Your task to perform on an android device: Search for seafood restaurants on Google Maps Image 0: 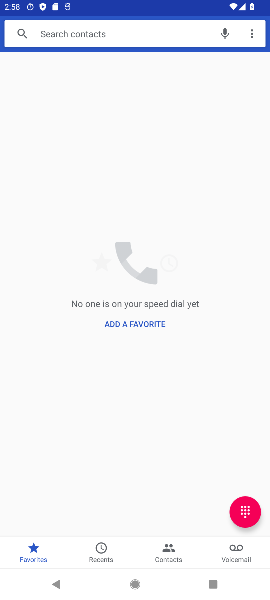
Step 0: press home button
Your task to perform on an android device: Search for seafood restaurants on Google Maps Image 1: 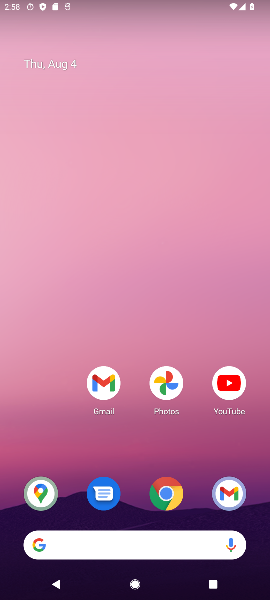
Step 1: click (39, 487)
Your task to perform on an android device: Search for seafood restaurants on Google Maps Image 2: 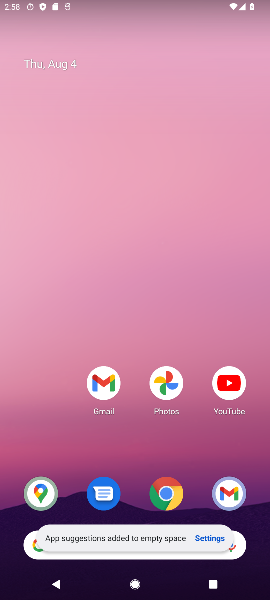
Step 2: click (48, 498)
Your task to perform on an android device: Search for seafood restaurants on Google Maps Image 3: 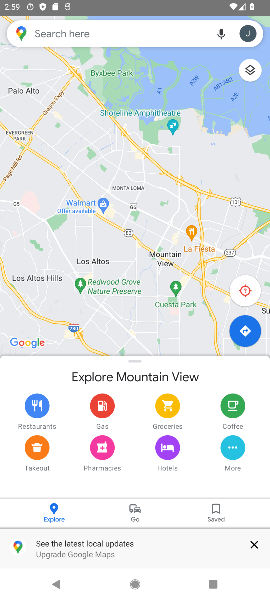
Step 3: click (61, 31)
Your task to perform on an android device: Search for seafood restaurants on Google Maps Image 4: 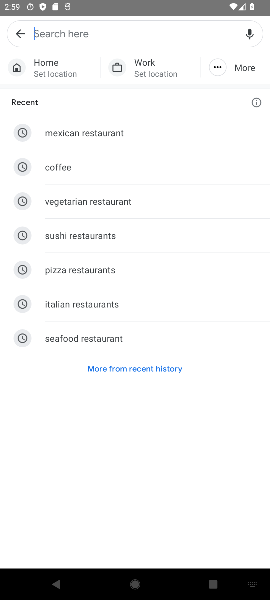
Step 4: type "seafood restaurants"
Your task to perform on an android device: Search for seafood restaurants on Google Maps Image 5: 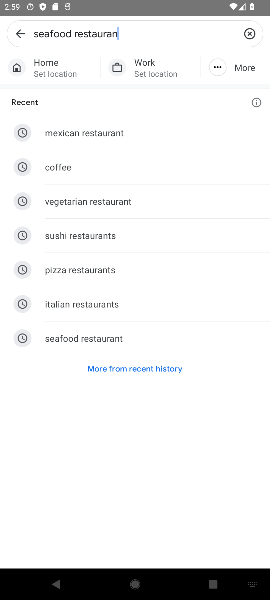
Step 5: type ""
Your task to perform on an android device: Search for seafood restaurants on Google Maps Image 6: 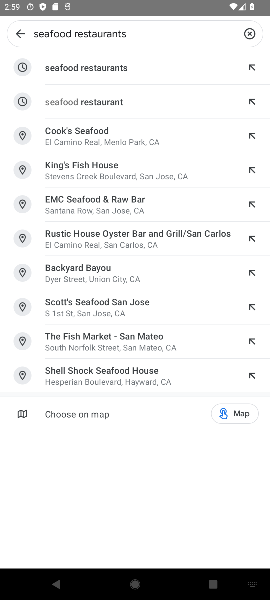
Step 6: click (93, 71)
Your task to perform on an android device: Search for seafood restaurants on Google Maps Image 7: 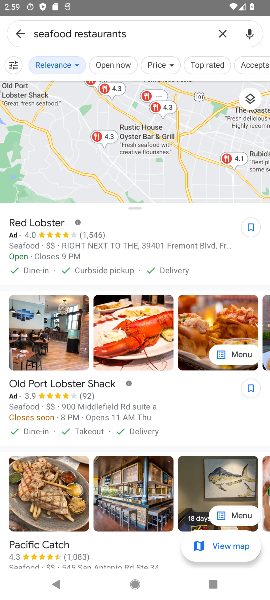
Step 7: task complete